Your task to perform on an android device: Search for hotels in Miami Image 0: 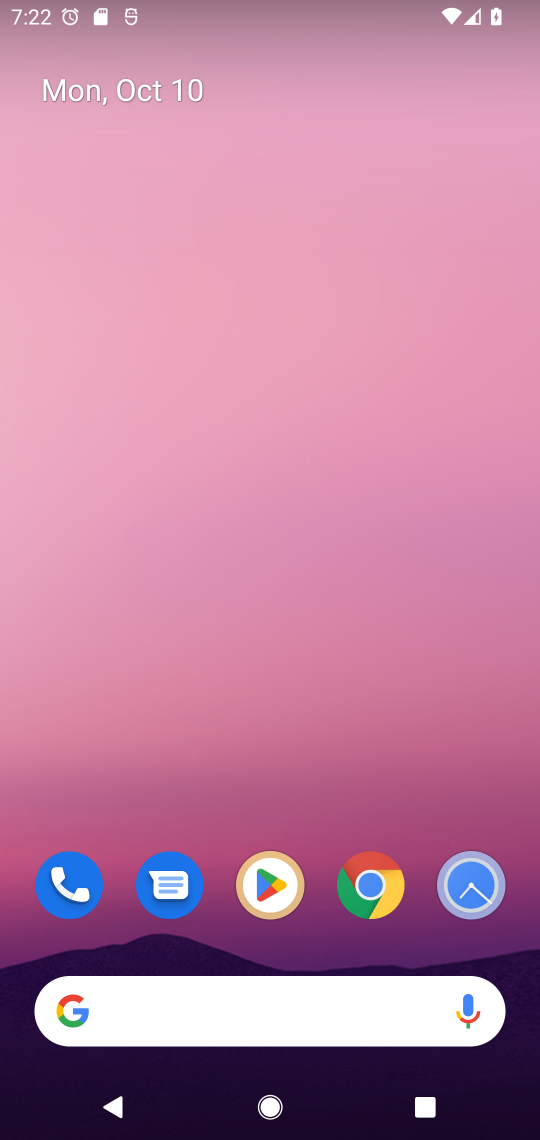
Step 0: click (368, 871)
Your task to perform on an android device: Search for hotels in Miami Image 1: 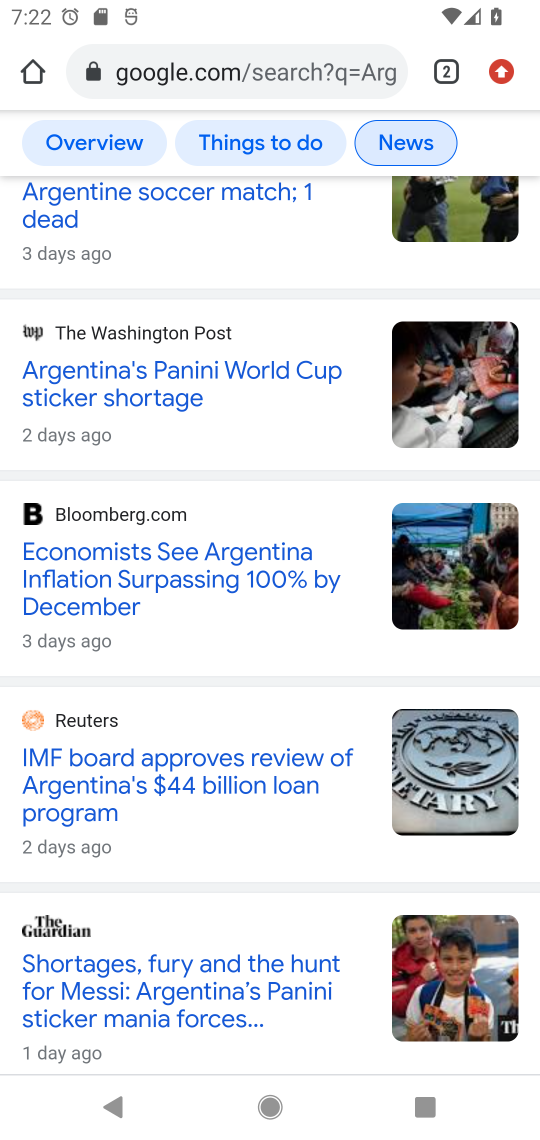
Step 1: click (153, 86)
Your task to perform on an android device: Search for hotels in Miami Image 2: 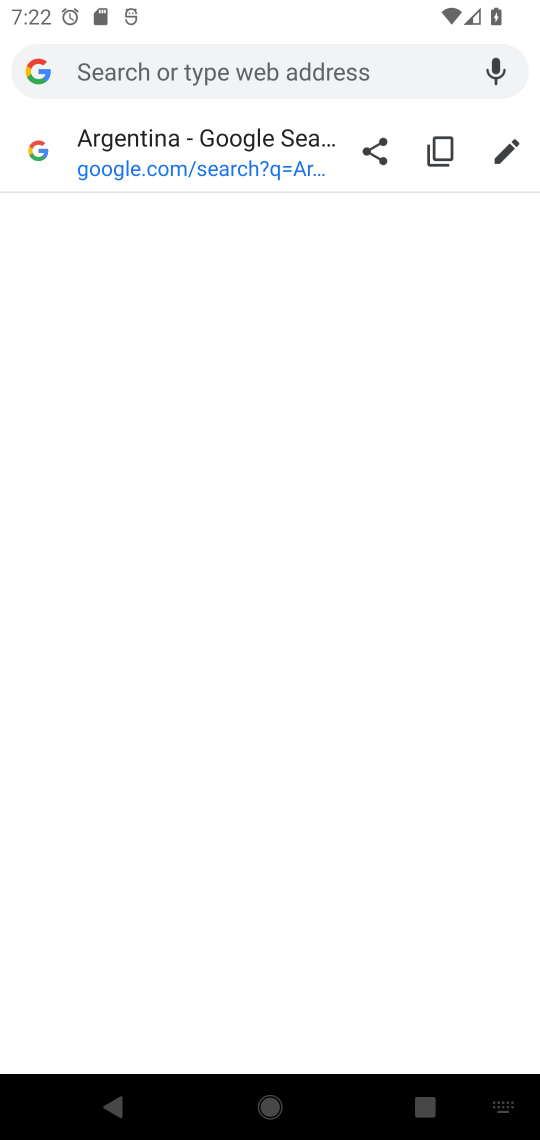
Step 2: type " hotels in Miami"
Your task to perform on an android device: Search for hotels in Miami Image 3: 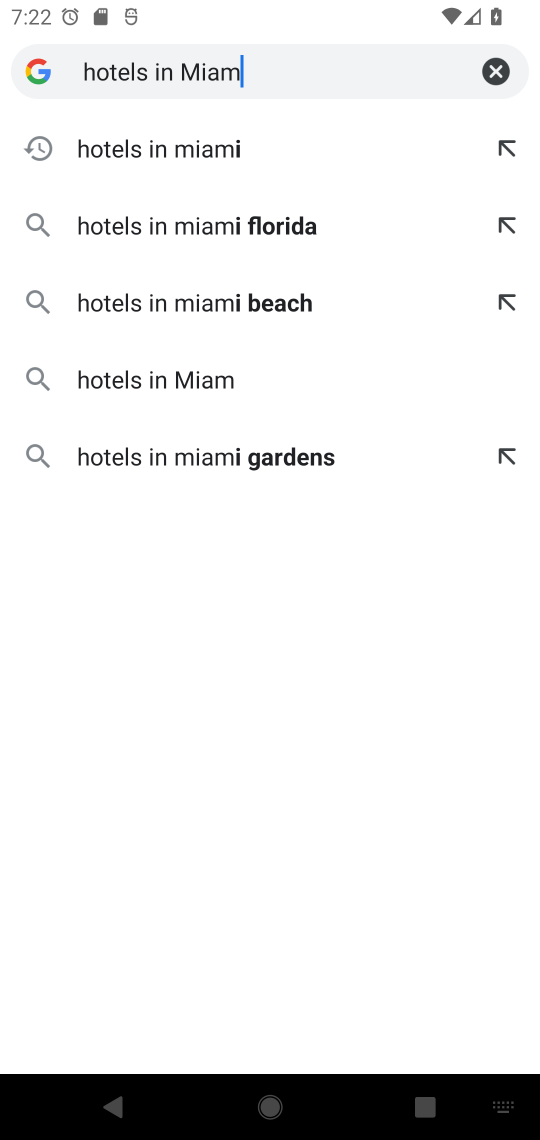
Step 3: type ""
Your task to perform on an android device: Search for hotels in Miami Image 4: 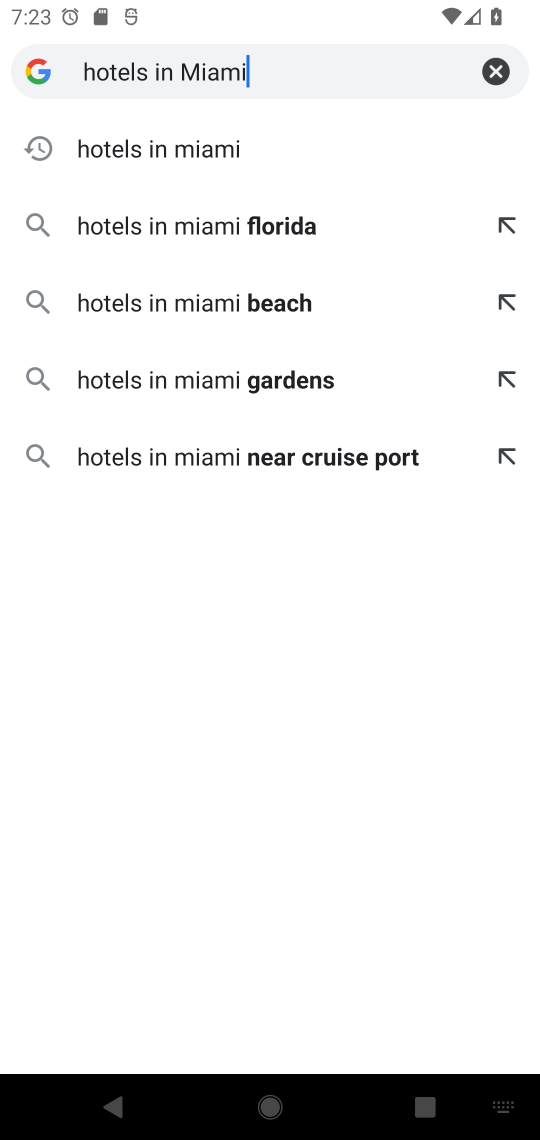
Step 4: click (190, 136)
Your task to perform on an android device: Search for hotels in Miami Image 5: 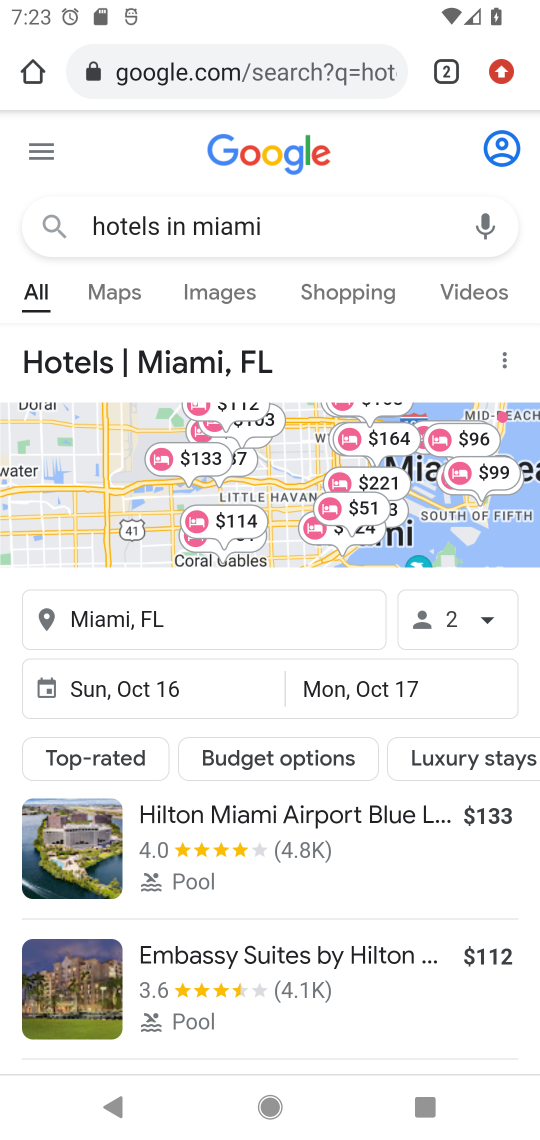
Step 5: drag from (249, 906) to (203, 488)
Your task to perform on an android device: Search for hotels in Miami Image 6: 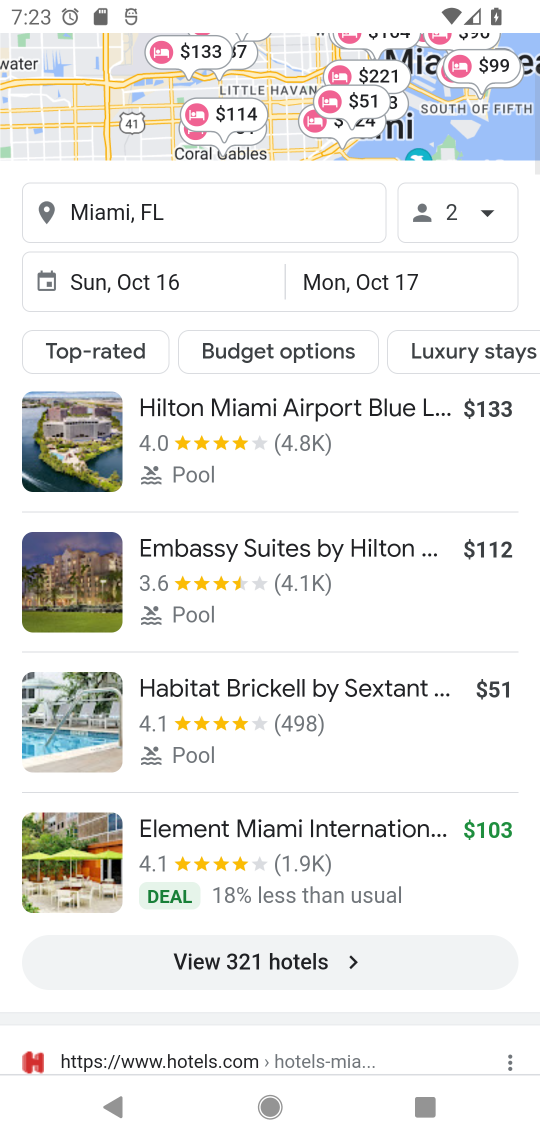
Step 6: click (268, 958)
Your task to perform on an android device: Search for hotels in Miami Image 7: 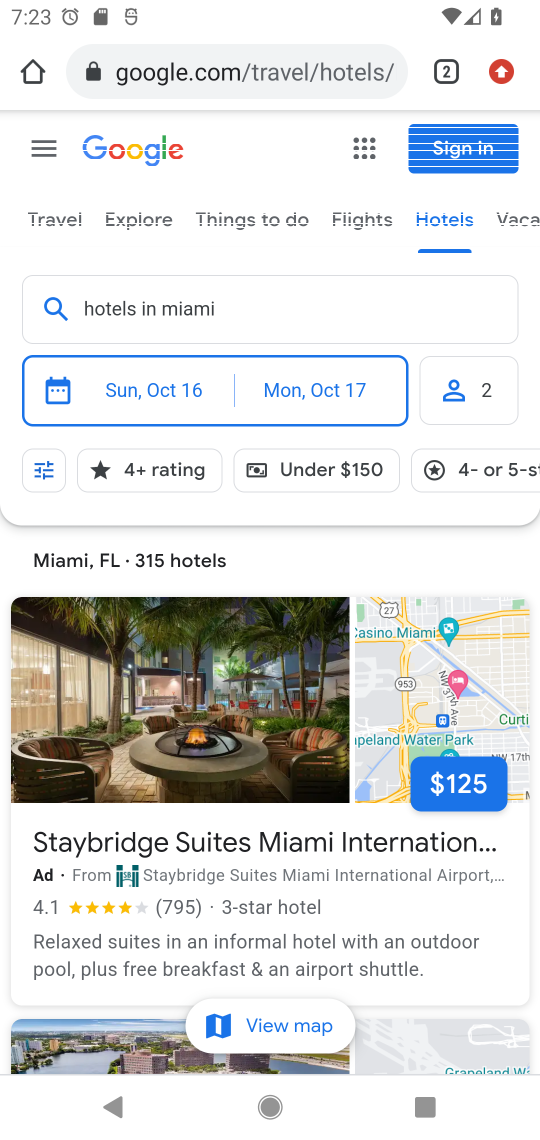
Step 7: task complete